Your task to perform on an android device: toggle location history Image 0: 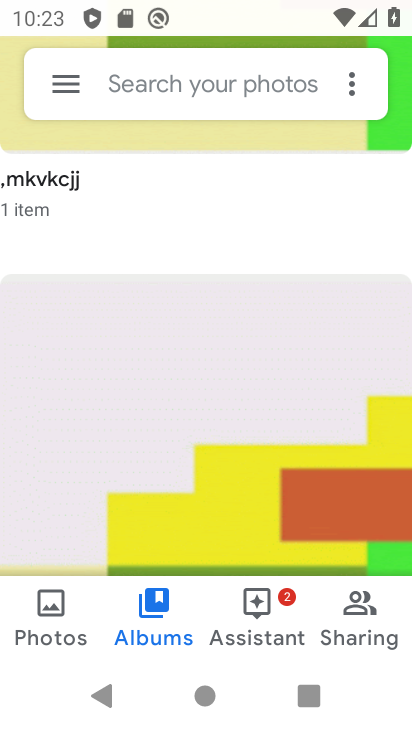
Step 0: press home button
Your task to perform on an android device: toggle location history Image 1: 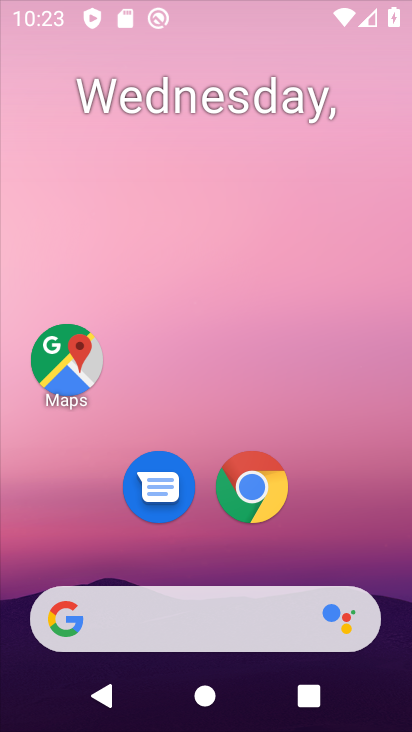
Step 1: drag from (211, 621) to (248, 97)
Your task to perform on an android device: toggle location history Image 2: 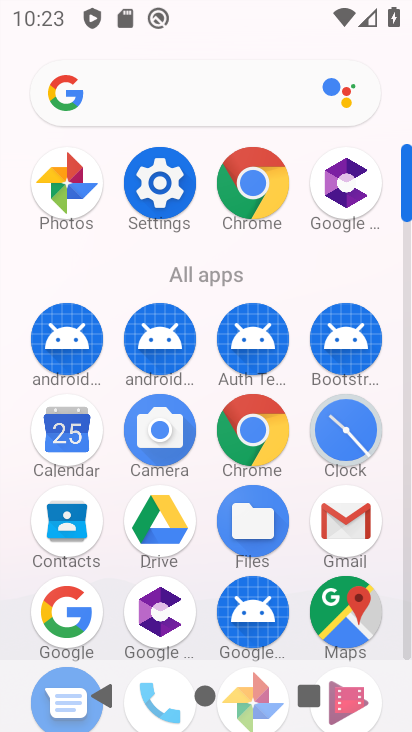
Step 2: click (161, 189)
Your task to perform on an android device: toggle location history Image 3: 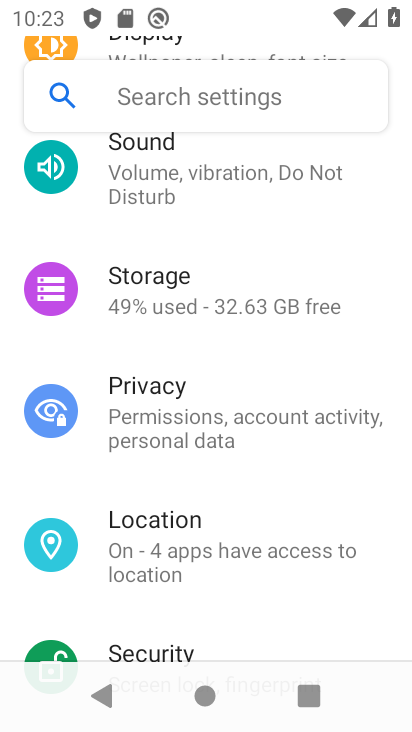
Step 3: click (140, 563)
Your task to perform on an android device: toggle location history Image 4: 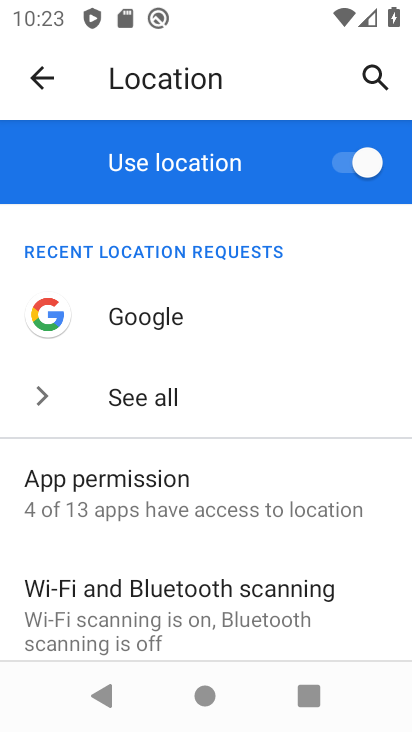
Step 4: drag from (202, 618) to (233, 232)
Your task to perform on an android device: toggle location history Image 5: 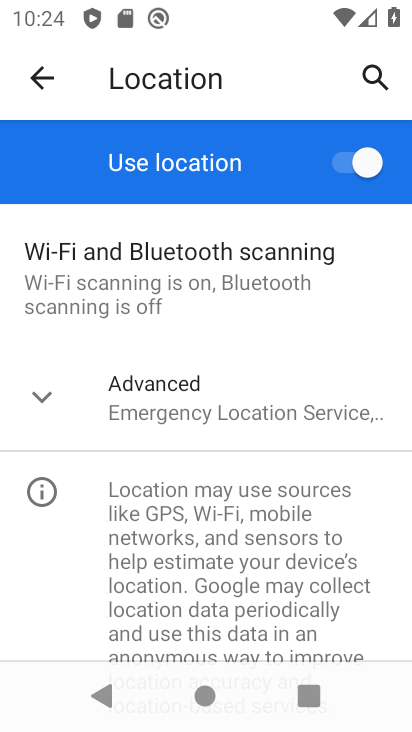
Step 5: click (173, 408)
Your task to perform on an android device: toggle location history Image 6: 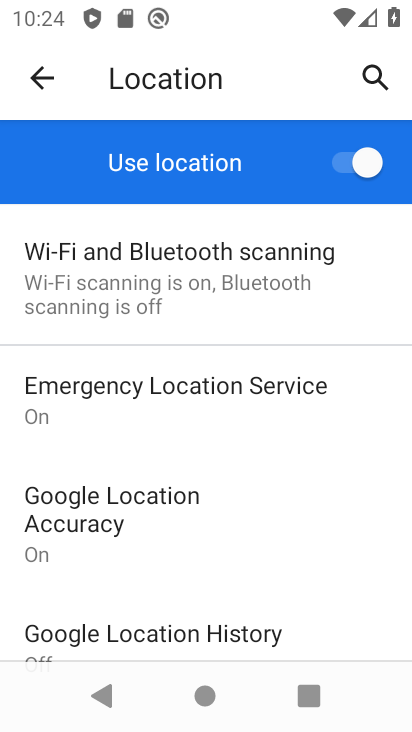
Step 6: drag from (193, 593) to (238, 260)
Your task to perform on an android device: toggle location history Image 7: 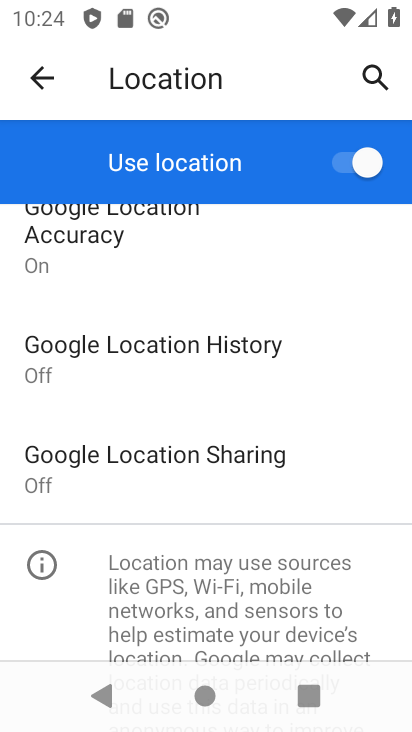
Step 7: click (216, 359)
Your task to perform on an android device: toggle location history Image 8: 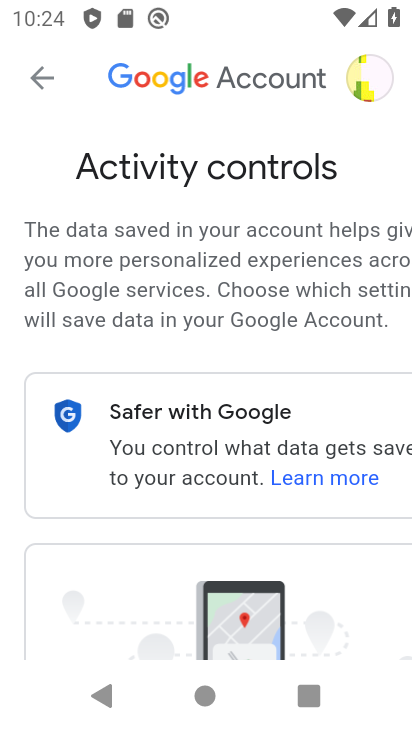
Step 8: drag from (314, 623) to (241, 197)
Your task to perform on an android device: toggle location history Image 9: 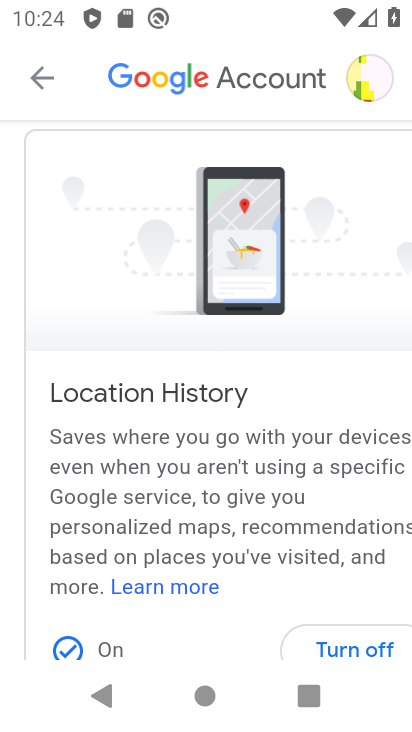
Step 9: click (350, 649)
Your task to perform on an android device: toggle location history Image 10: 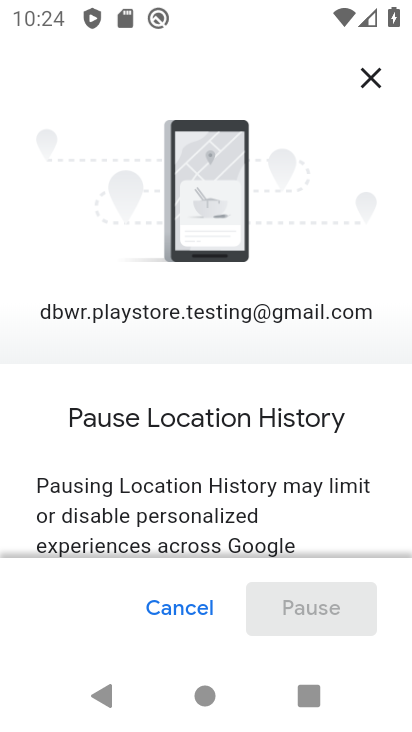
Step 10: drag from (247, 520) to (232, 128)
Your task to perform on an android device: toggle location history Image 11: 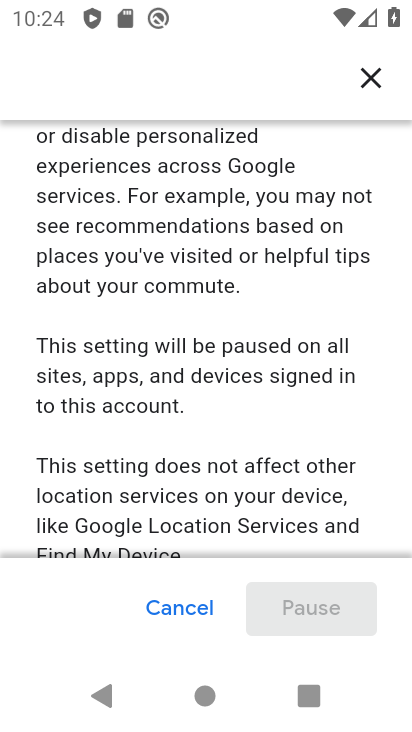
Step 11: drag from (113, 454) to (194, 88)
Your task to perform on an android device: toggle location history Image 12: 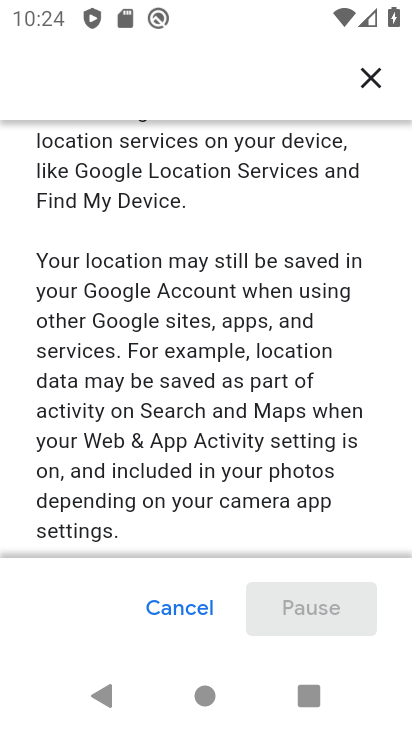
Step 12: drag from (236, 425) to (294, 139)
Your task to perform on an android device: toggle location history Image 13: 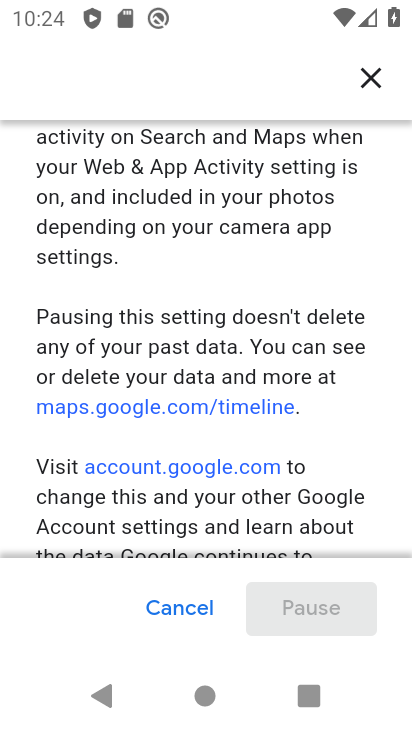
Step 13: drag from (292, 481) to (319, 290)
Your task to perform on an android device: toggle location history Image 14: 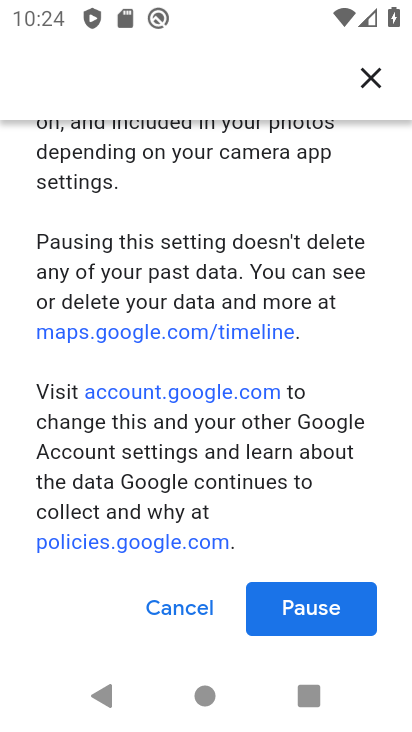
Step 14: click (318, 615)
Your task to perform on an android device: toggle location history Image 15: 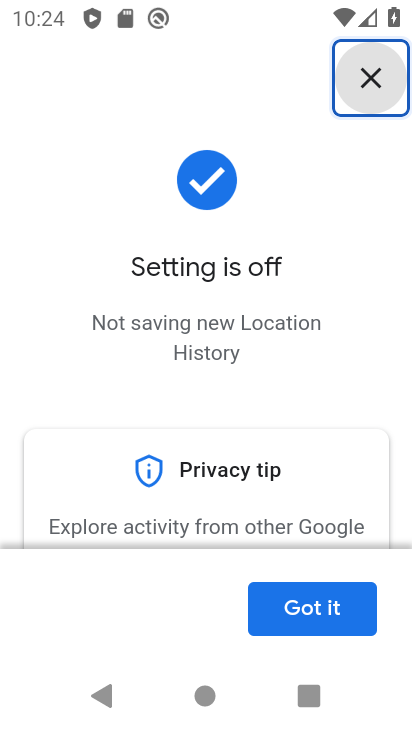
Step 15: task complete